Your task to perform on an android device: Add bose soundsport free to the cart on newegg, then select checkout. Image 0: 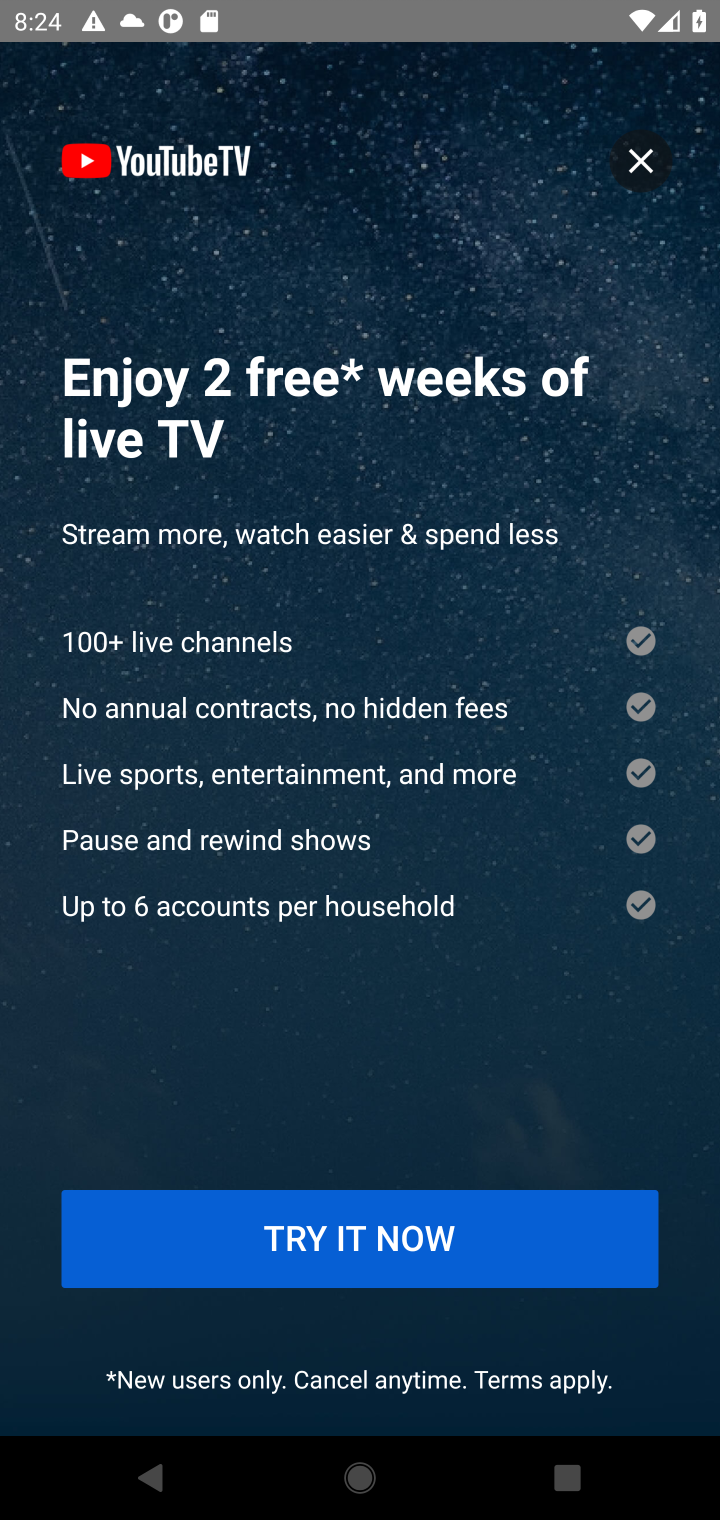
Step 0: press home button
Your task to perform on an android device: Add bose soundsport free to the cart on newegg, then select checkout. Image 1: 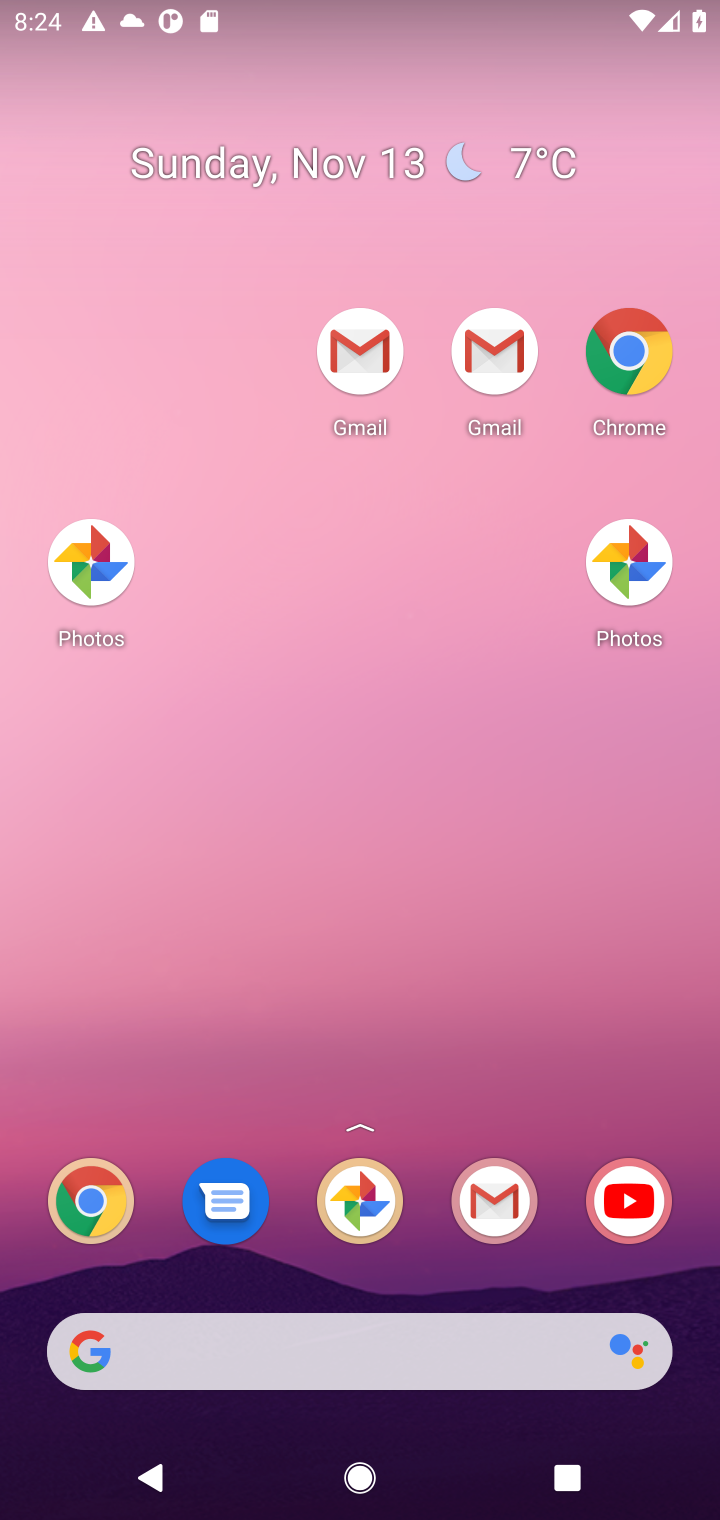
Step 1: drag from (434, 1192) to (261, 159)
Your task to perform on an android device: Add bose soundsport free to the cart on newegg, then select checkout. Image 2: 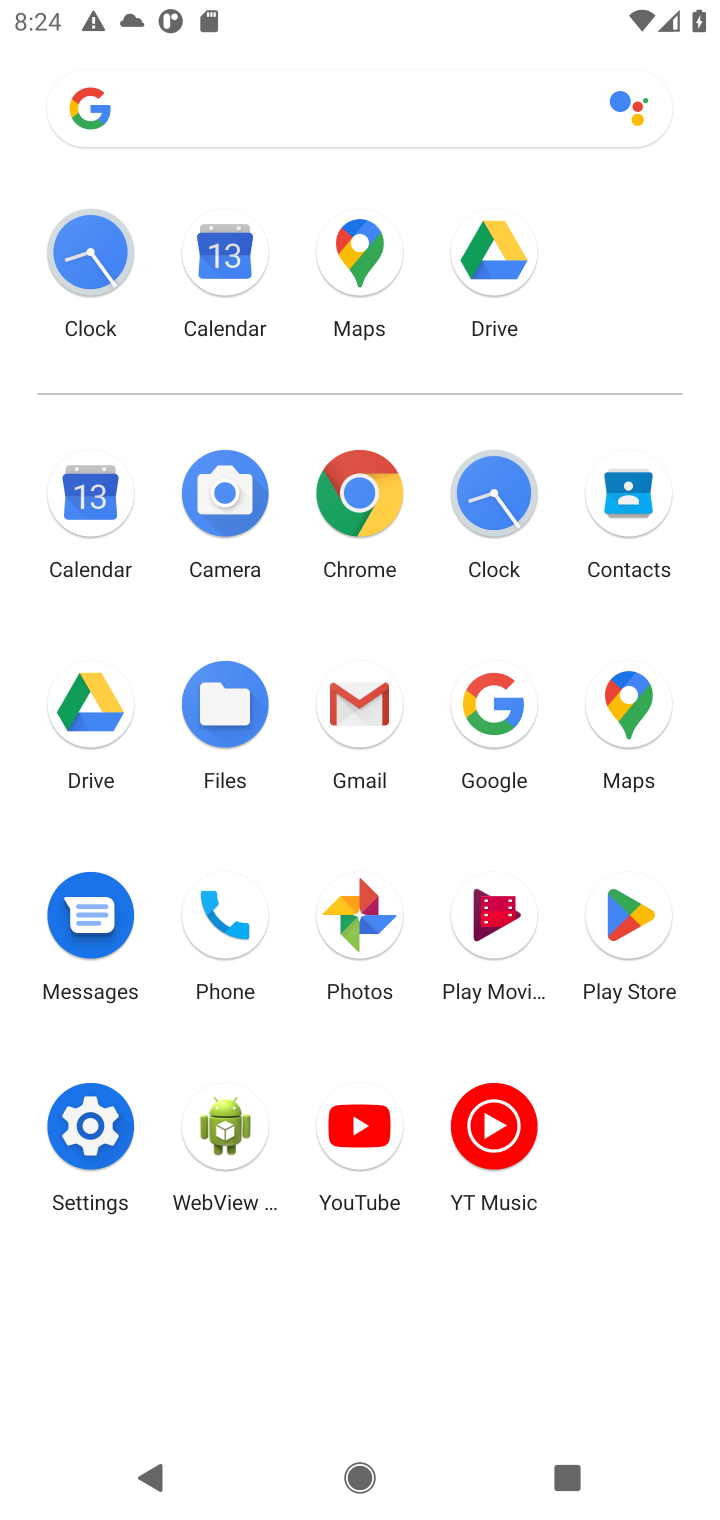
Step 2: click (350, 494)
Your task to perform on an android device: Add bose soundsport free to the cart on newegg, then select checkout. Image 3: 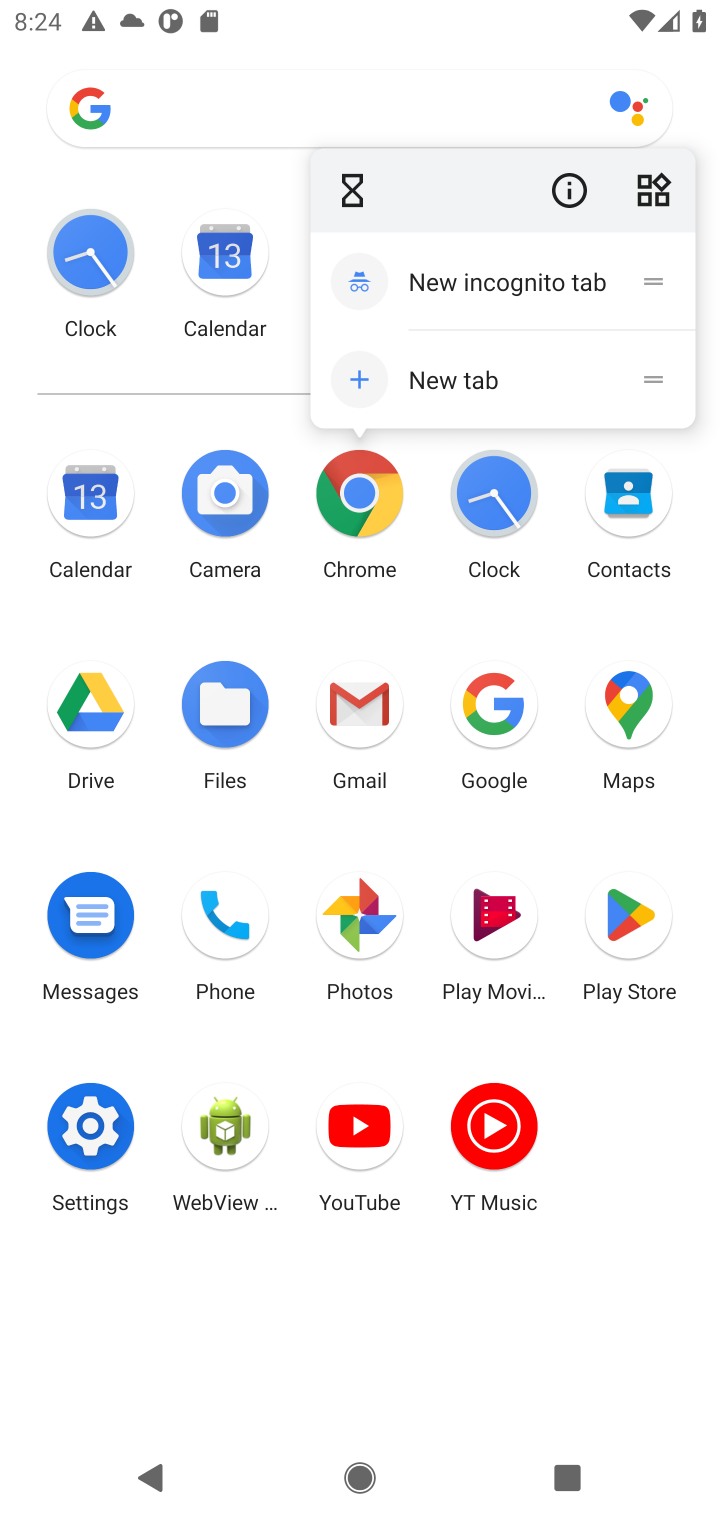
Step 3: click (361, 505)
Your task to perform on an android device: Add bose soundsport free to the cart on newegg, then select checkout. Image 4: 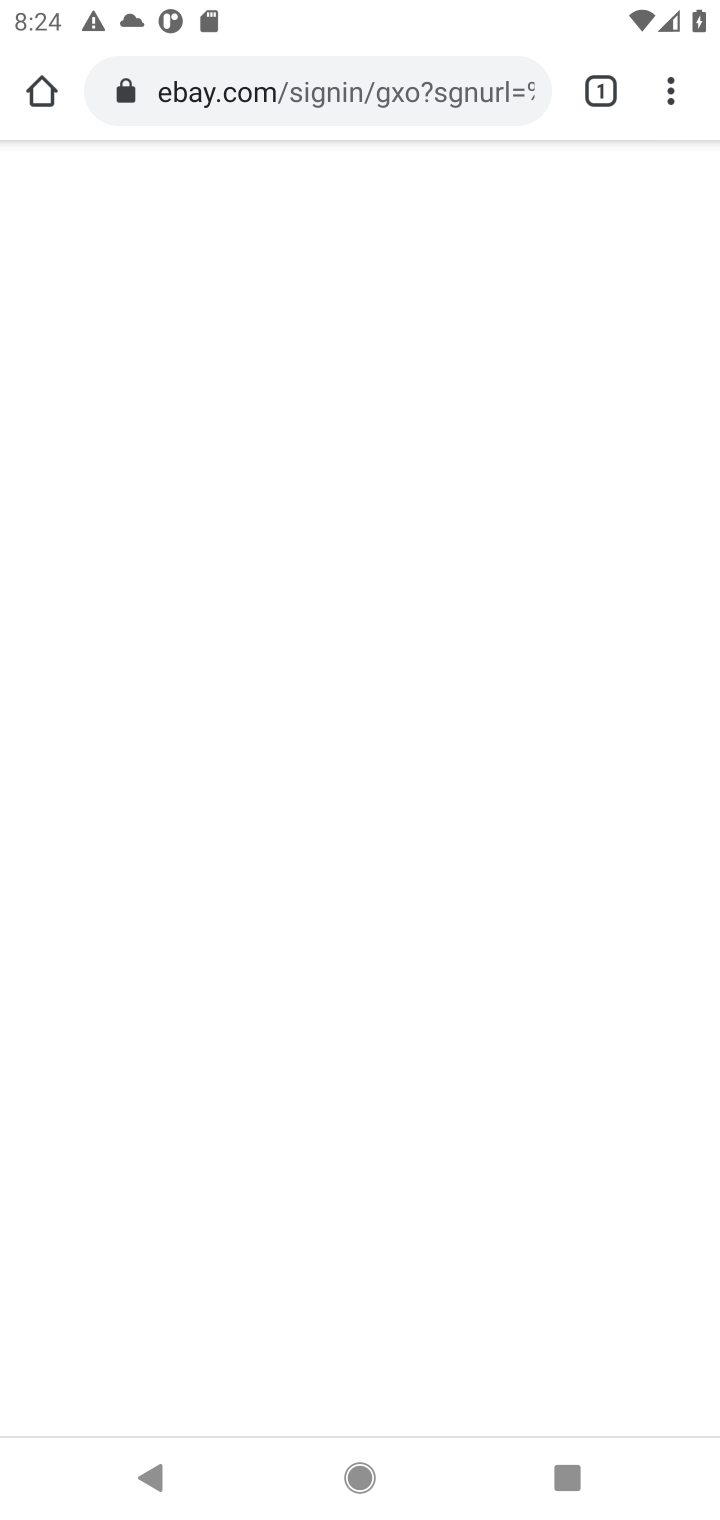
Step 4: click (369, 86)
Your task to perform on an android device: Add bose soundsport free to the cart on newegg, then select checkout. Image 5: 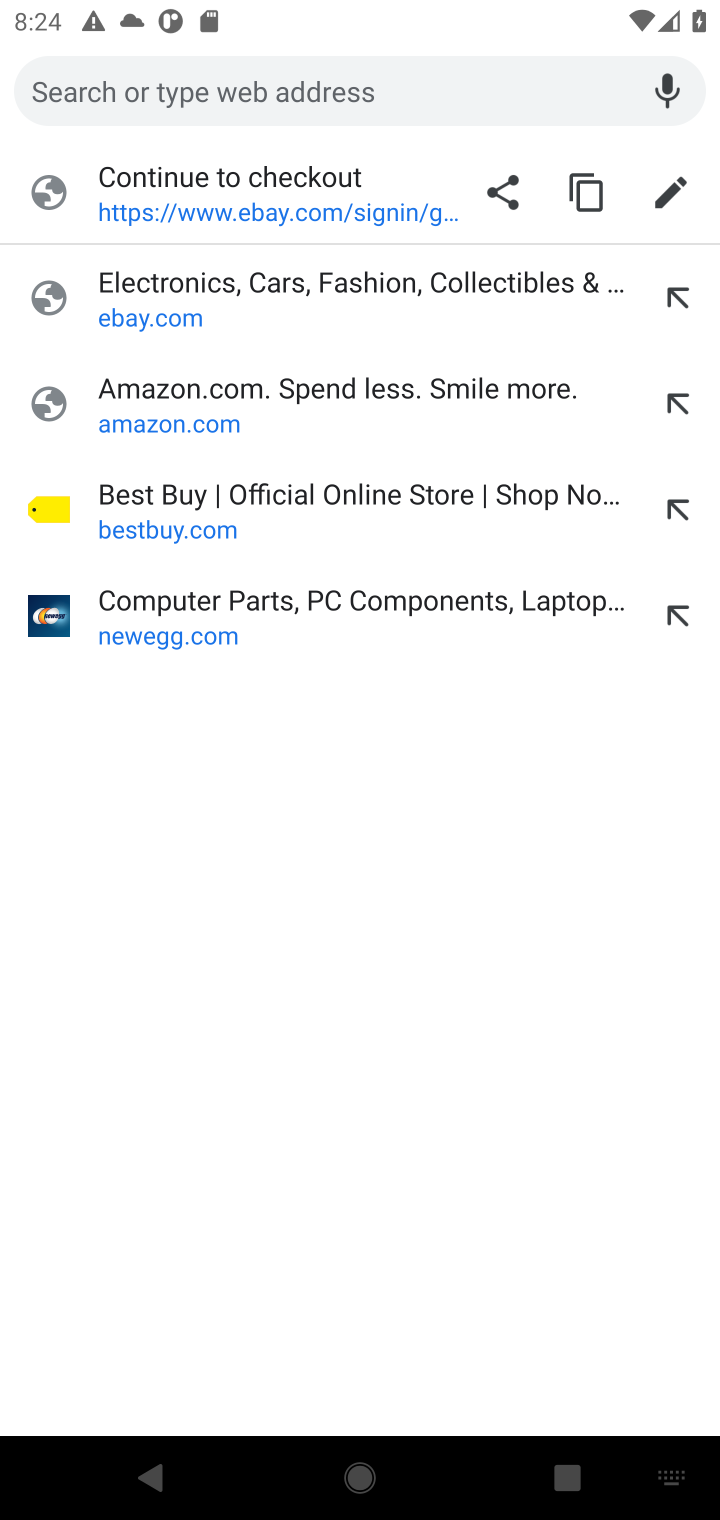
Step 5: type "newegg.com"
Your task to perform on an android device: Add bose soundsport free to the cart on newegg, then select checkout. Image 6: 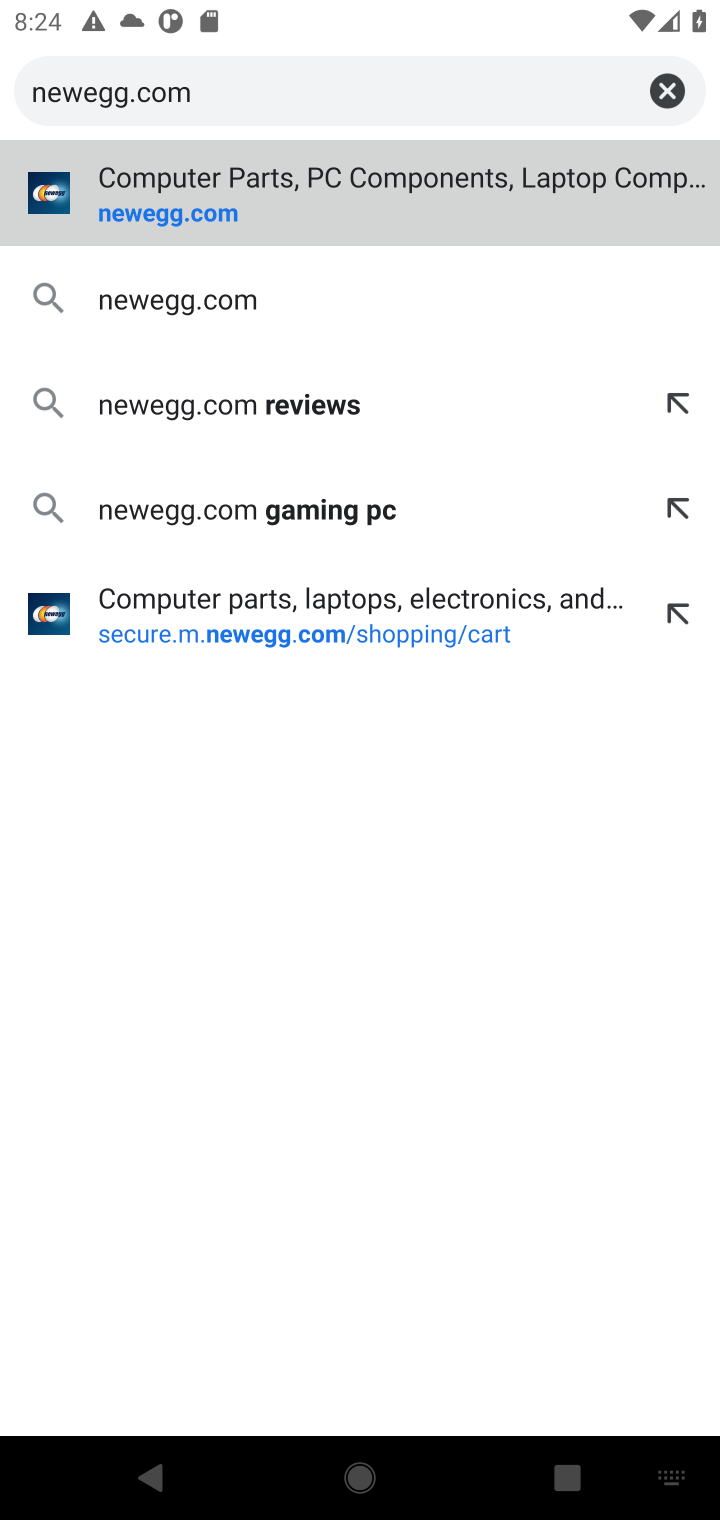
Step 6: press enter
Your task to perform on an android device: Add bose soundsport free to the cart on newegg, then select checkout. Image 7: 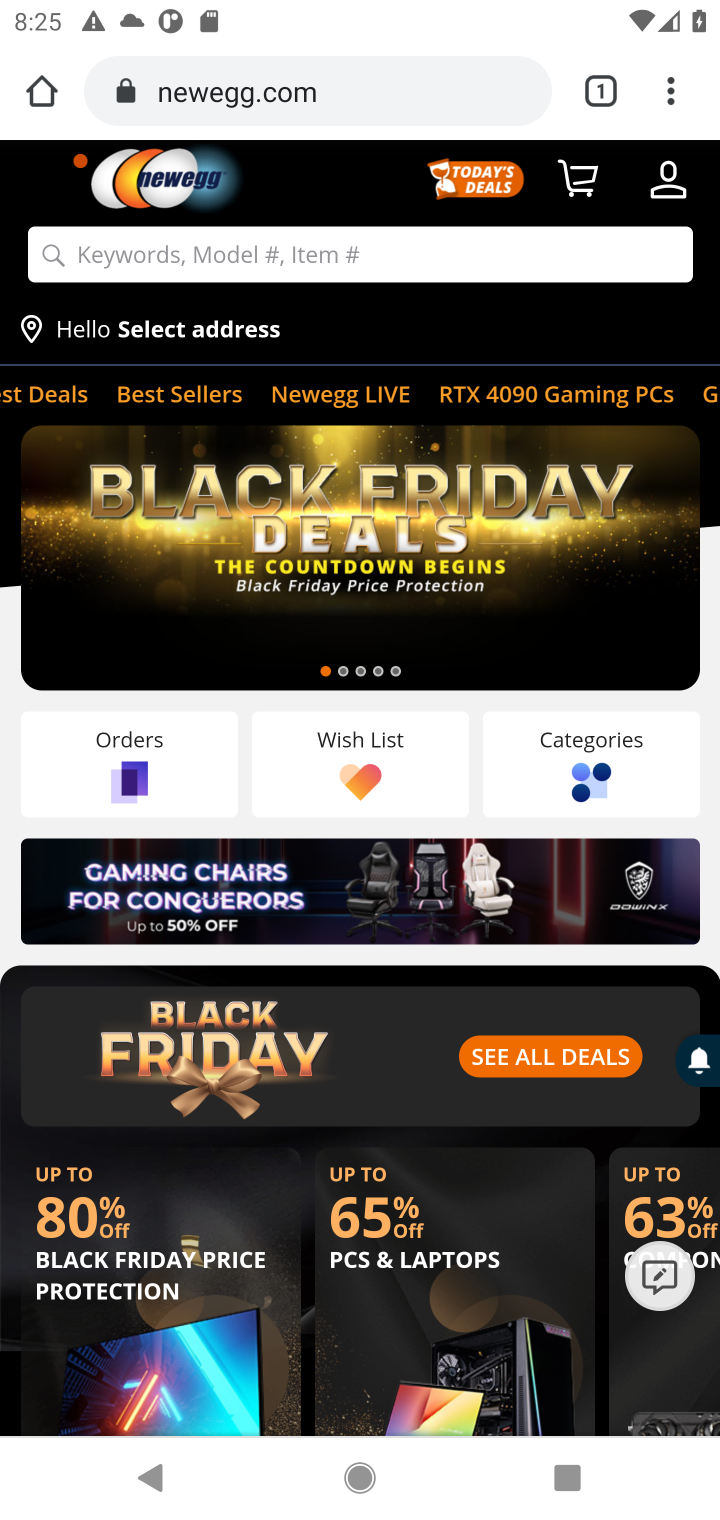
Step 7: click (239, 263)
Your task to perform on an android device: Add bose soundsport free to the cart on newegg, then select checkout. Image 8: 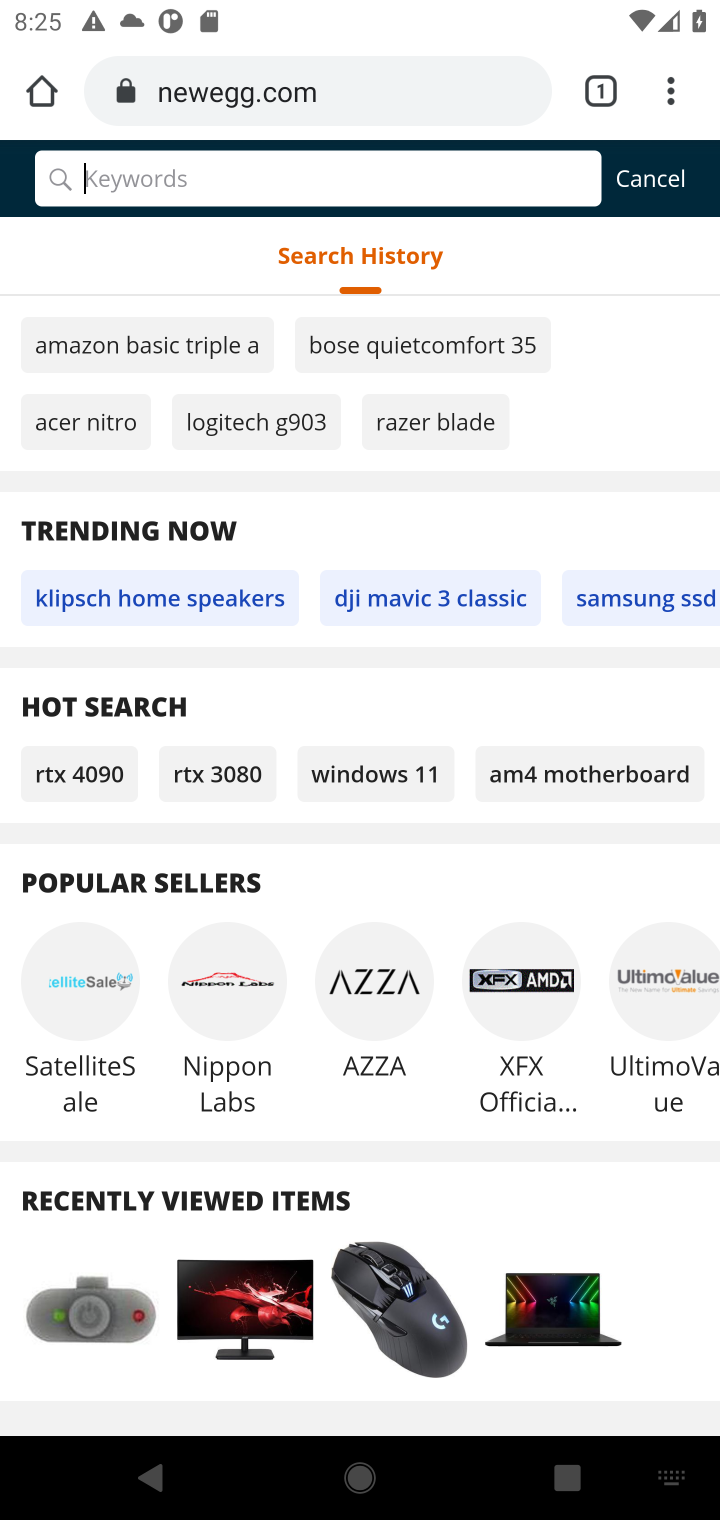
Step 8: type "bose soundsport free"
Your task to perform on an android device: Add bose soundsport free to the cart on newegg, then select checkout. Image 9: 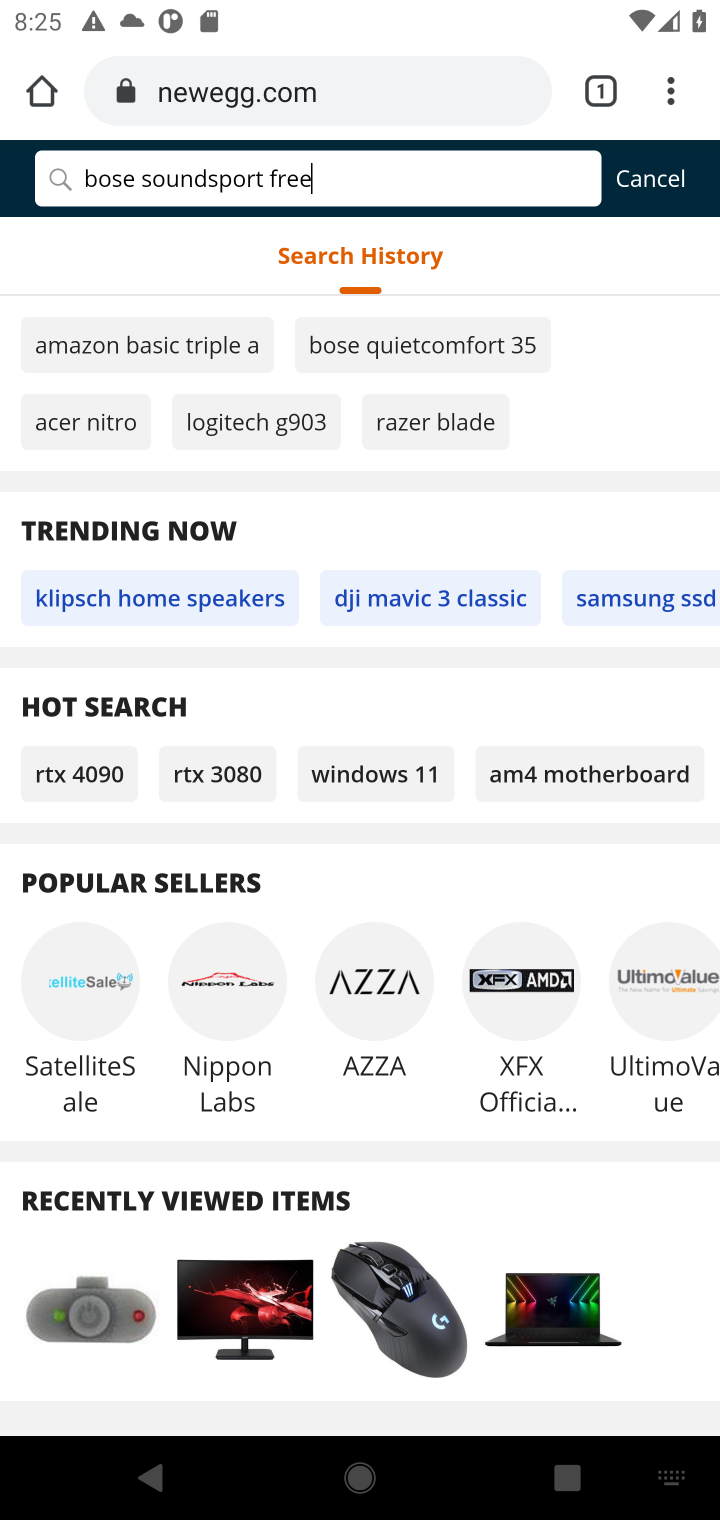
Step 9: press enter
Your task to perform on an android device: Add bose soundsport free to the cart on newegg, then select checkout. Image 10: 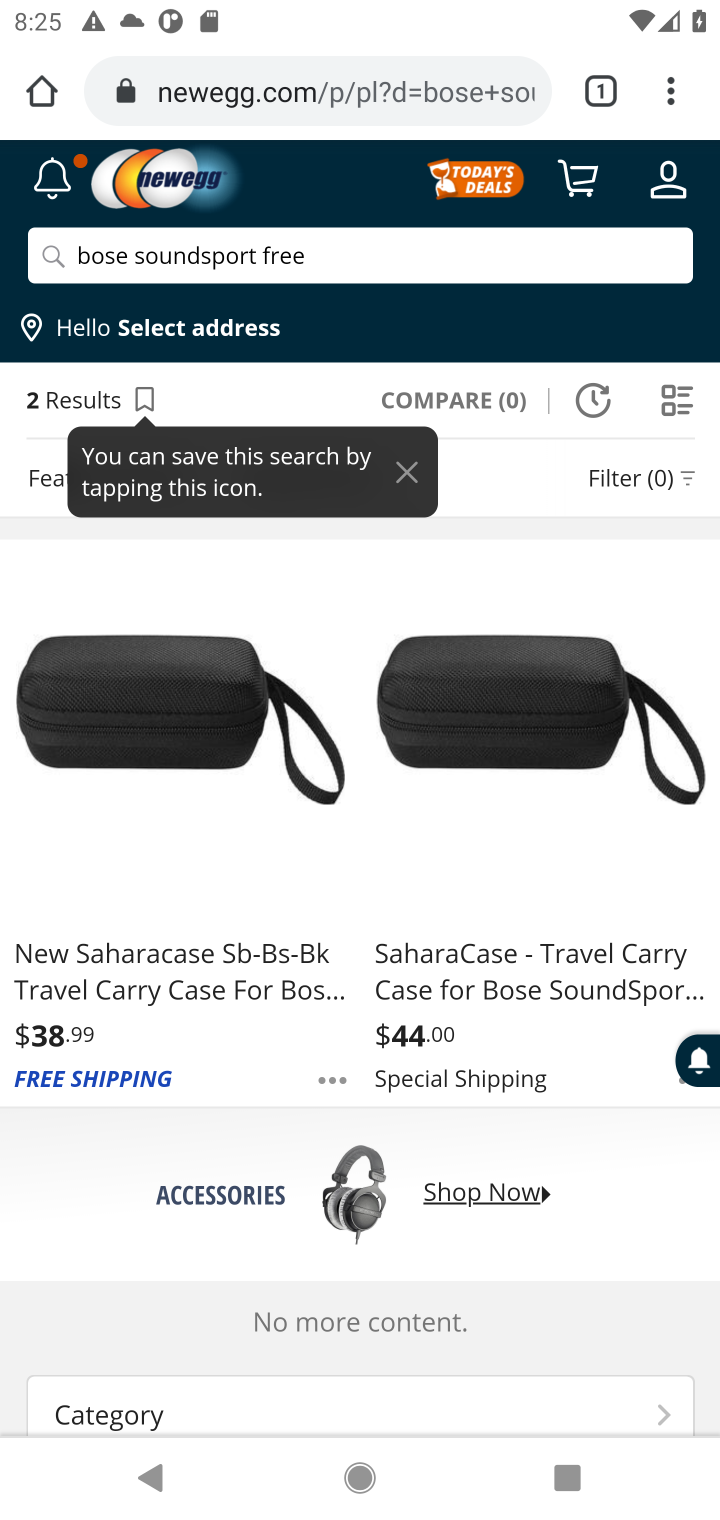
Step 10: task complete